Your task to perform on an android device: Open calendar and show me the fourth week of next month Image 0: 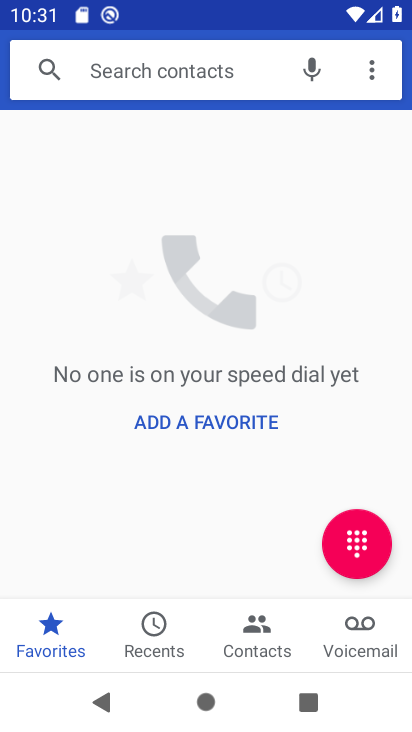
Step 0: press home button
Your task to perform on an android device: Open calendar and show me the fourth week of next month Image 1: 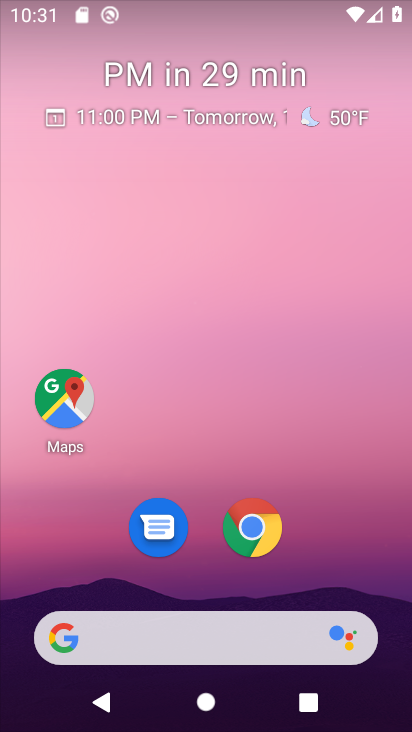
Step 1: drag from (339, 535) to (269, 207)
Your task to perform on an android device: Open calendar and show me the fourth week of next month Image 2: 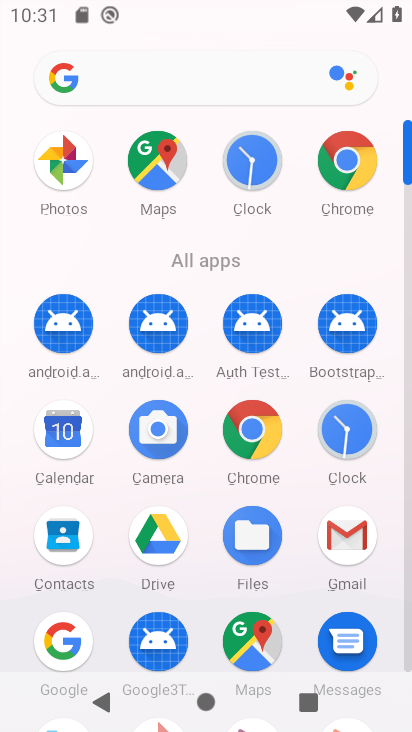
Step 2: click (70, 429)
Your task to perform on an android device: Open calendar and show me the fourth week of next month Image 3: 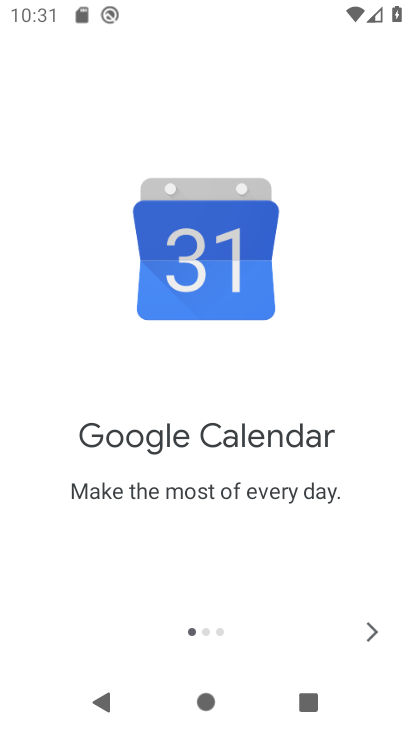
Step 3: click (377, 629)
Your task to perform on an android device: Open calendar and show me the fourth week of next month Image 4: 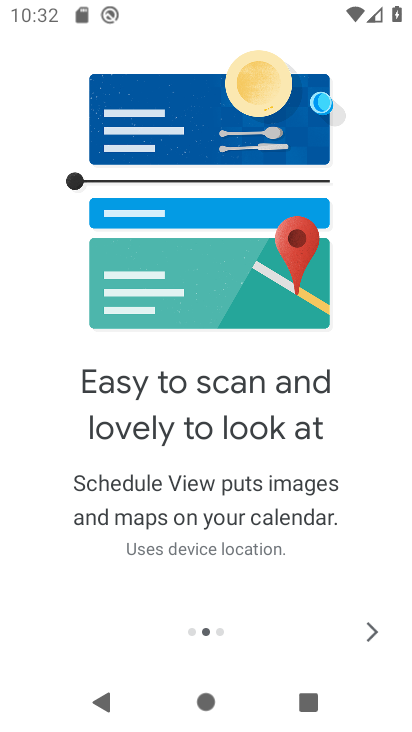
Step 4: click (365, 628)
Your task to perform on an android device: Open calendar and show me the fourth week of next month Image 5: 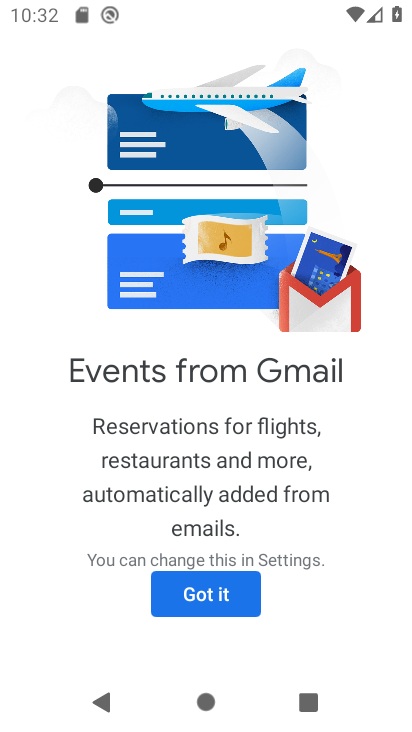
Step 5: click (224, 592)
Your task to perform on an android device: Open calendar and show me the fourth week of next month Image 6: 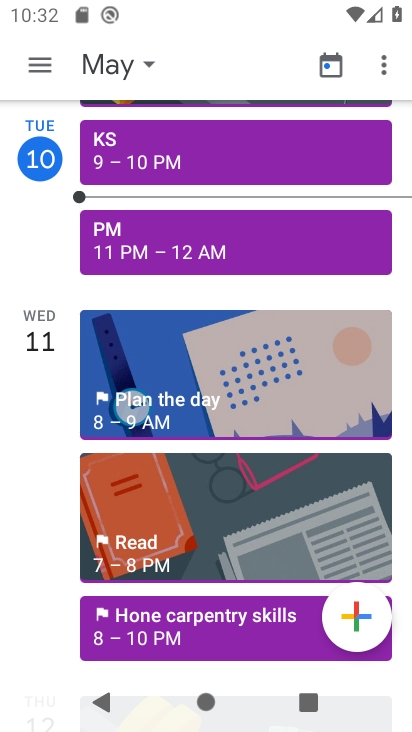
Step 6: click (43, 62)
Your task to perform on an android device: Open calendar and show me the fourth week of next month Image 7: 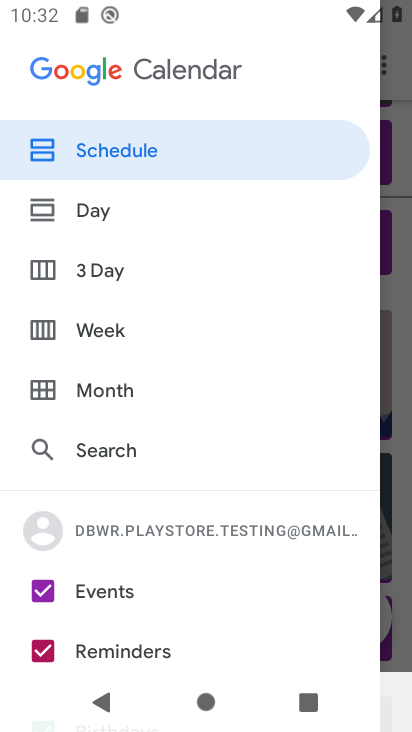
Step 7: click (130, 331)
Your task to perform on an android device: Open calendar and show me the fourth week of next month Image 8: 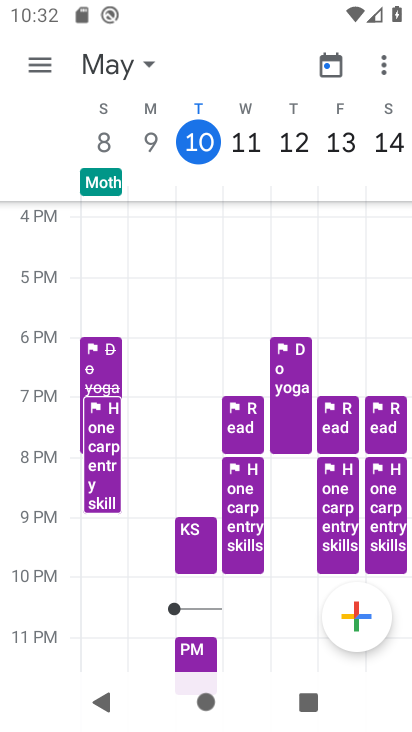
Step 8: click (139, 66)
Your task to perform on an android device: Open calendar and show me the fourth week of next month Image 9: 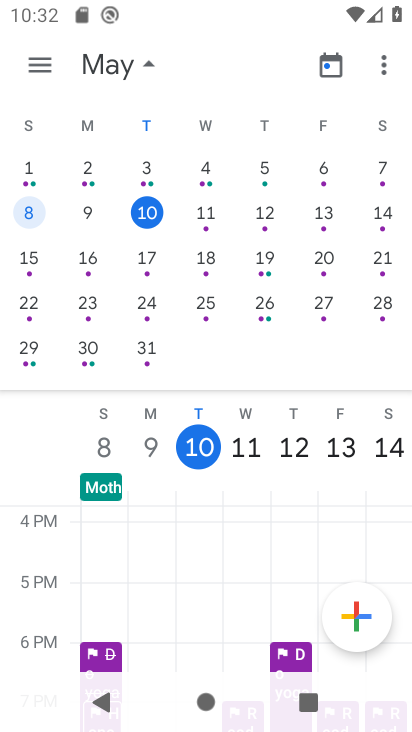
Step 9: drag from (317, 265) to (9, 257)
Your task to perform on an android device: Open calendar and show me the fourth week of next month Image 10: 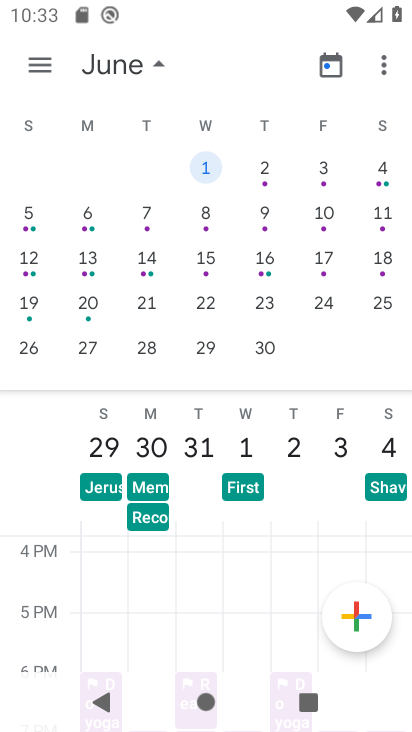
Step 10: click (21, 347)
Your task to perform on an android device: Open calendar and show me the fourth week of next month Image 11: 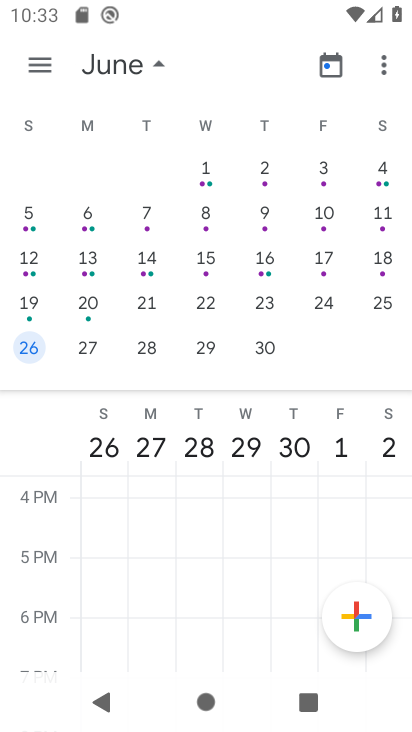
Step 11: task complete